Your task to perform on an android device: check android version Image 0: 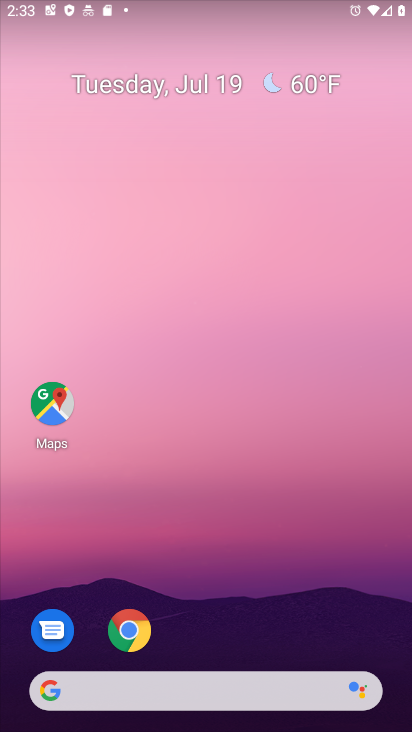
Step 0: click (183, 209)
Your task to perform on an android device: check android version Image 1: 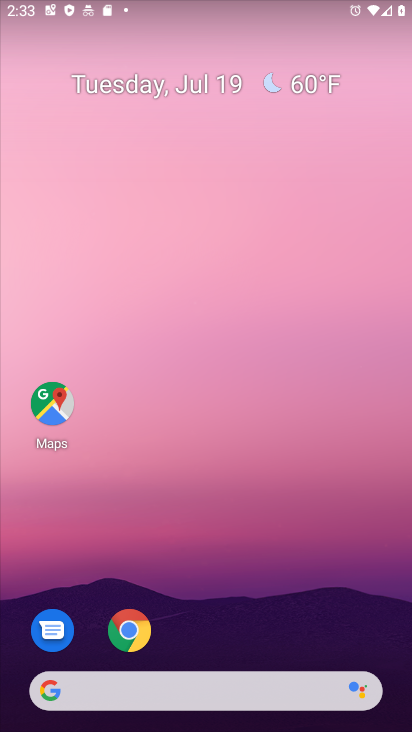
Step 1: drag from (241, 625) to (184, 182)
Your task to perform on an android device: check android version Image 2: 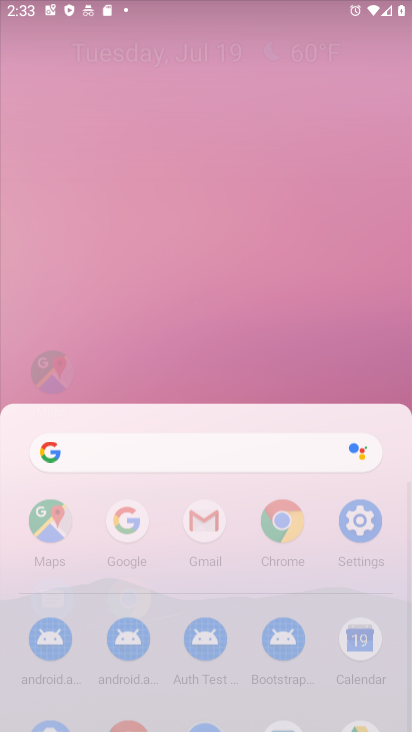
Step 2: drag from (274, 526) to (257, 167)
Your task to perform on an android device: check android version Image 3: 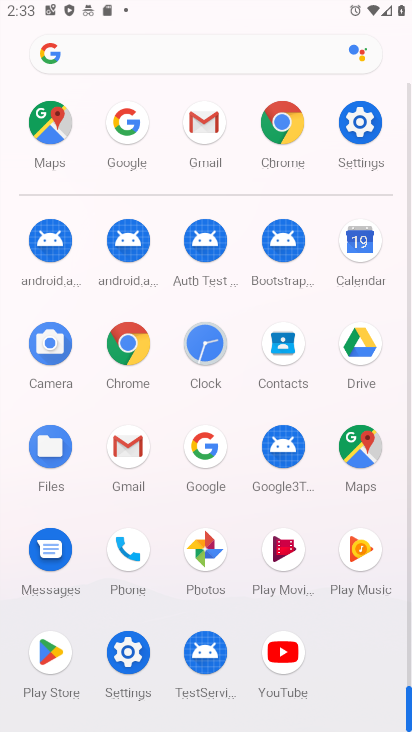
Step 3: drag from (257, 546) to (251, 166)
Your task to perform on an android device: check android version Image 4: 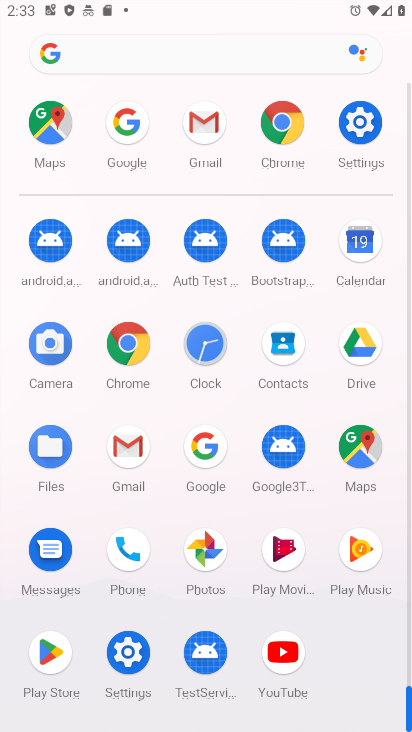
Step 4: click (358, 117)
Your task to perform on an android device: check android version Image 5: 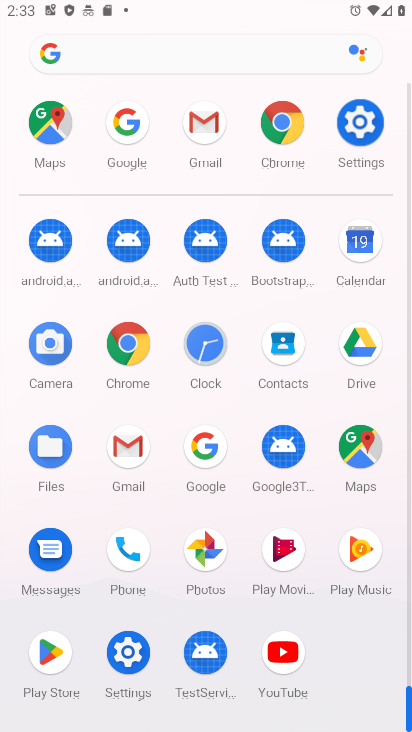
Step 5: click (358, 117)
Your task to perform on an android device: check android version Image 6: 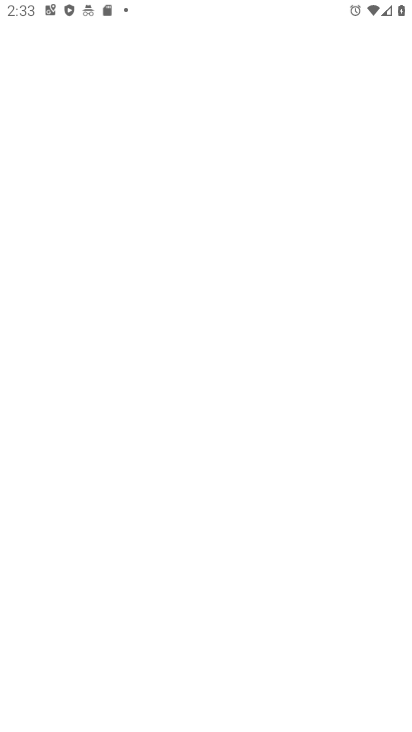
Step 6: click (358, 117)
Your task to perform on an android device: check android version Image 7: 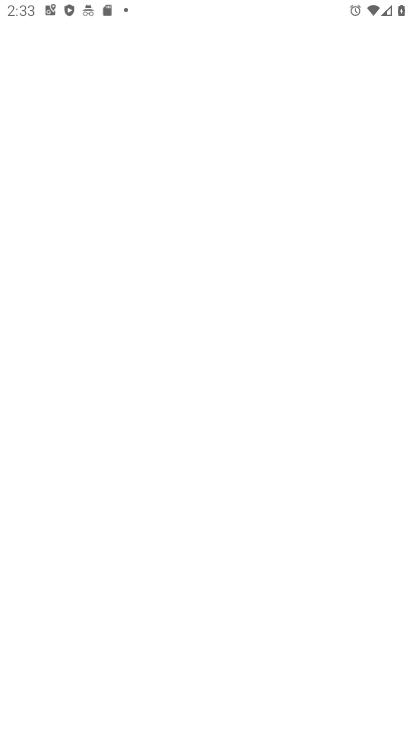
Step 7: click (358, 117)
Your task to perform on an android device: check android version Image 8: 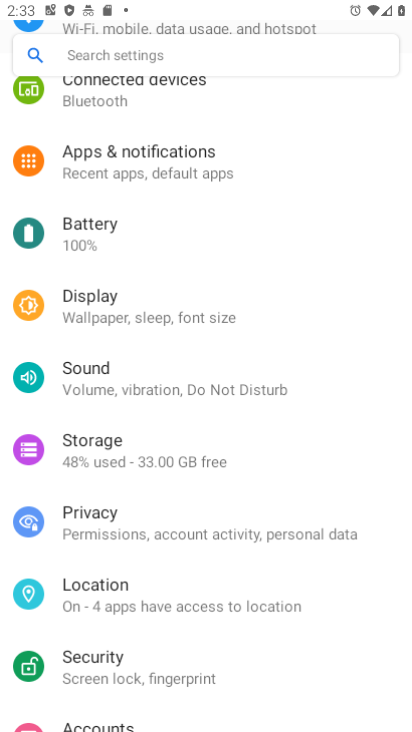
Step 8: drag from (189, 478) to (171, 133)
Your task to perform on an android device: check android version Image 9: 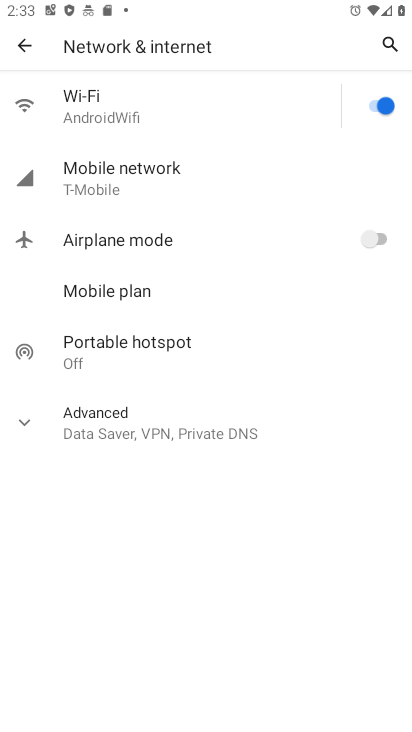
Step 9: drag from (215, 472) to (179, 198)
Your task to perform on an android device: check android version Image 10: 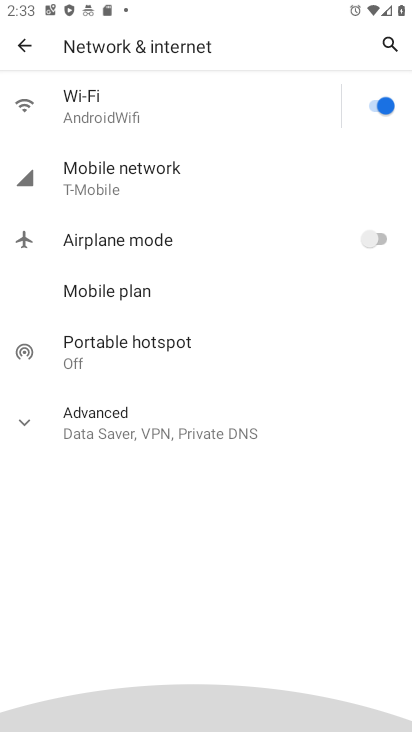
Step 10: drag from (191, 501) to (171, 242)
Your task to perform on an android device: check android version Image 11: 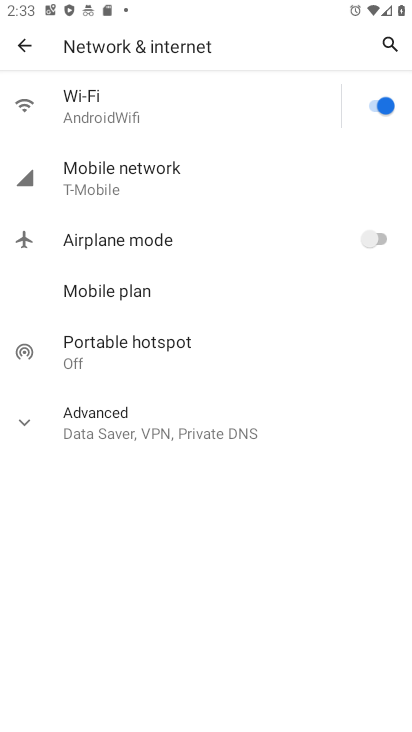
Step 11: click (89, 426)
Your task to perform on an android device: check android version Image 12: 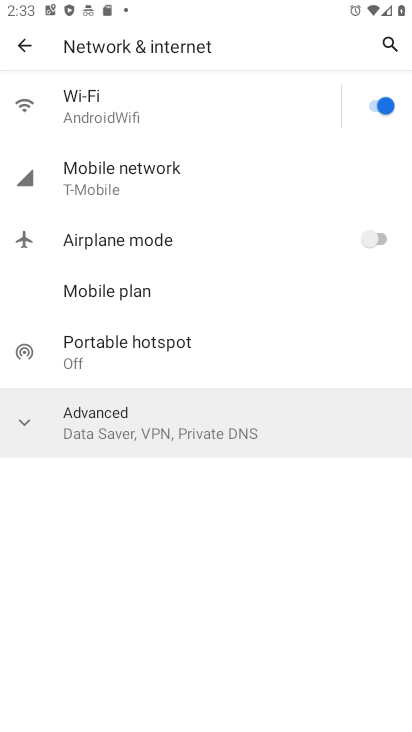
Step 12: click (90, 425)
Your task to perform on an android device: check android version Image 13: 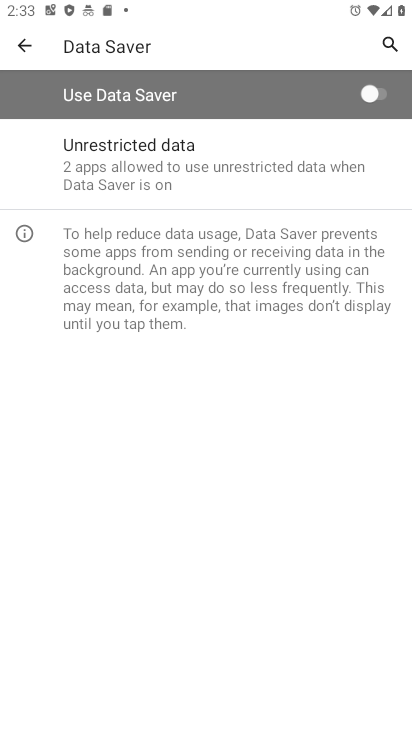
Step 13: click (26, 59)
Your task to perform on an android device: check android version Image 14: 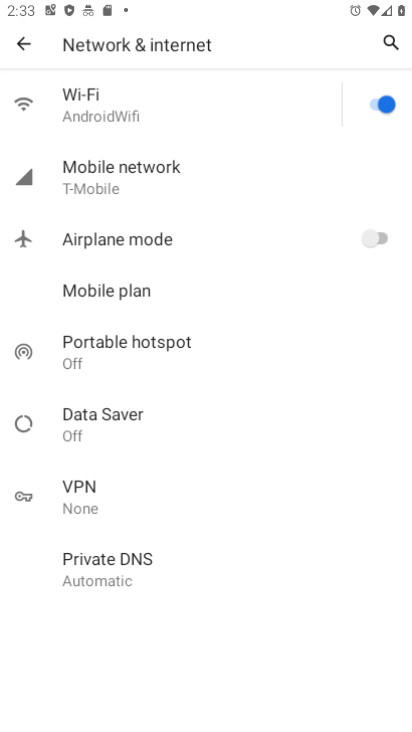
Step 14: task complete